Your task to perform on an android device: Open settings on Google Maps Image 0: 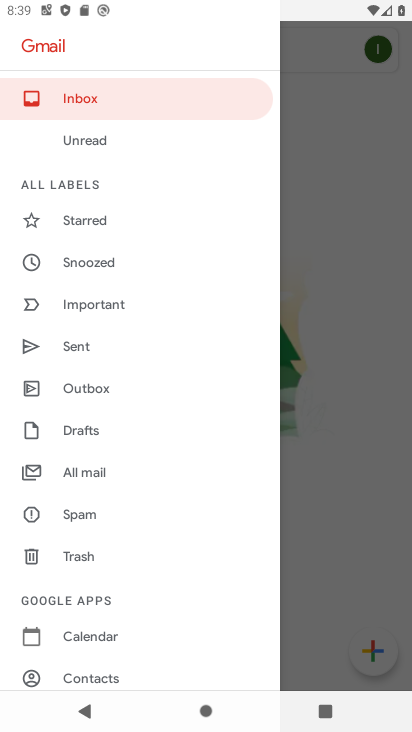
Step 0: press home button
Your task to perform on an android device: Open settings on Google Maps Image 1: 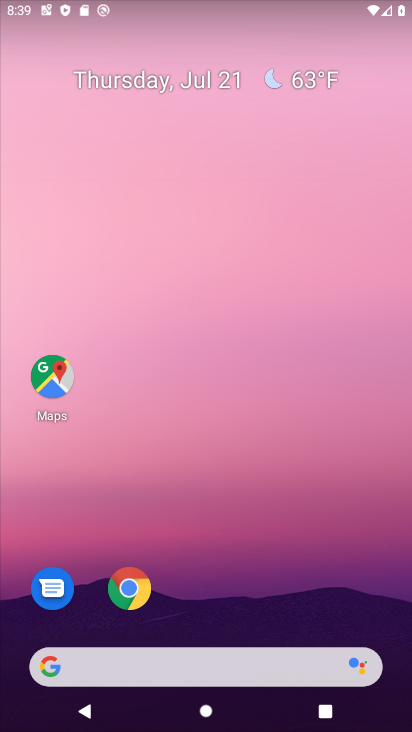
Step 1: click (42, 367)
Your task to perform on an android device: Open settings on Google Maps Image 2: 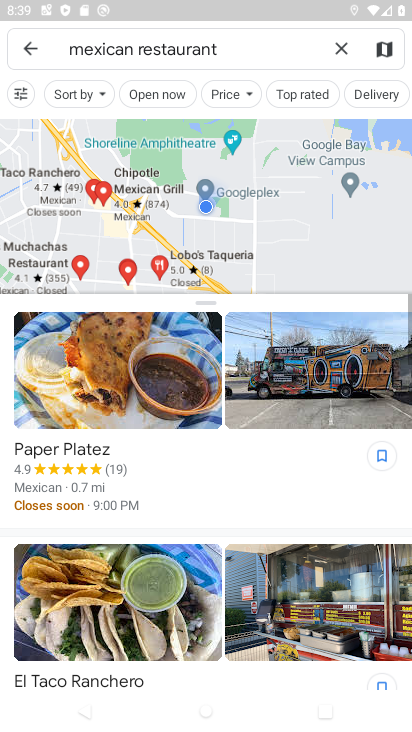
Step 2: click (43, 35)
Your task to perform on an android device: Open settings on Google Maps Image 3: 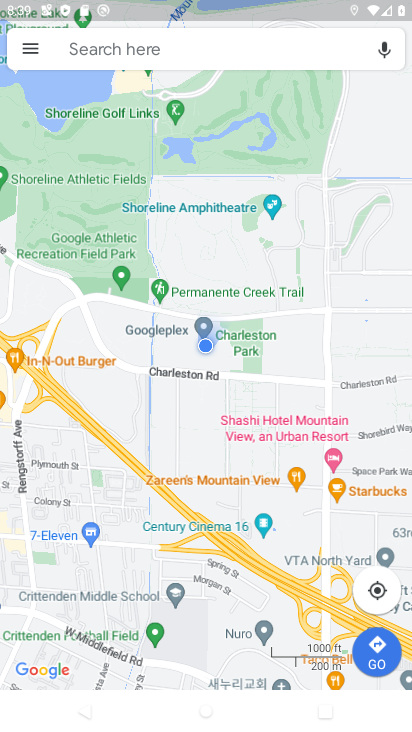
Step 3: click (29, 40)
Your task to perform on an android device: Open settings on Google Maps Image 4: 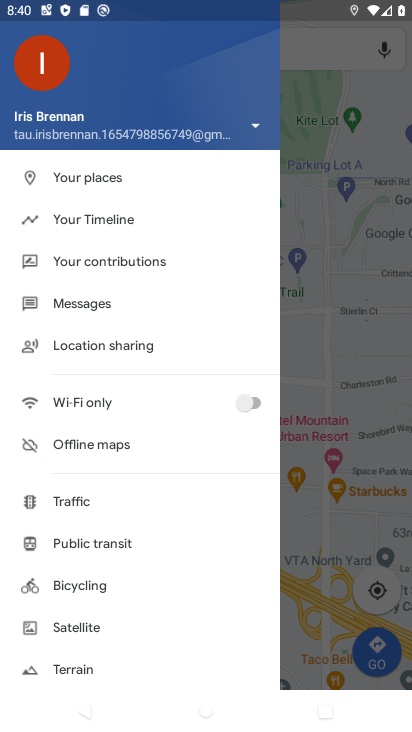
Step 4: drag from (95, 581) to (95, 378)
Your task to perform on an android device: Open settings on Google Maps Image 5: 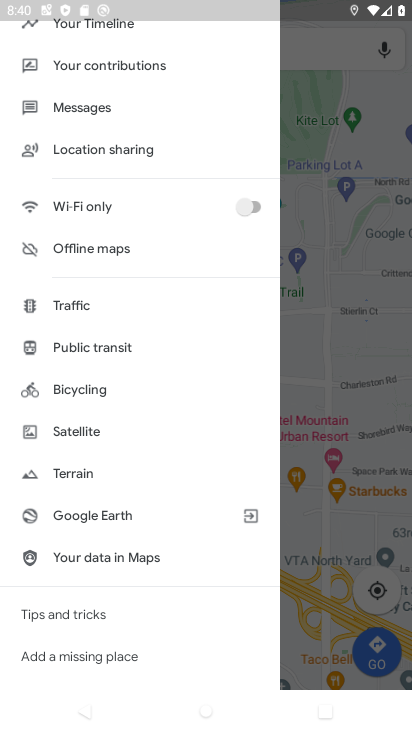
Step 5: drag from (83, 615) to (82, 400)
Your task to perform on an android device: Open settings on Google Maps Image 6: 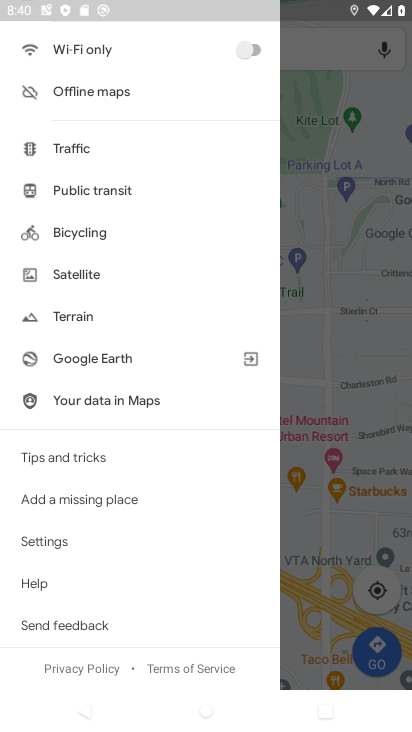
Step 6: click (68, 546)
Your task to perform on an android device: Open settings on Google Maps Image 7: 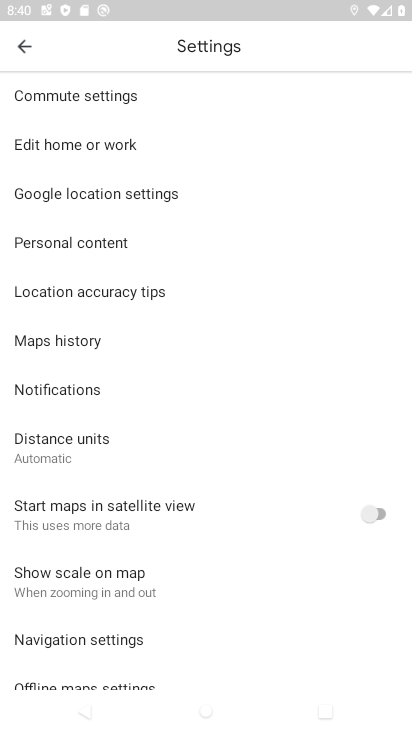
Step 7: task complete